Your task to perform on an android device: Open Google Chrome and click the shortcut for Amazon.com Image 0: 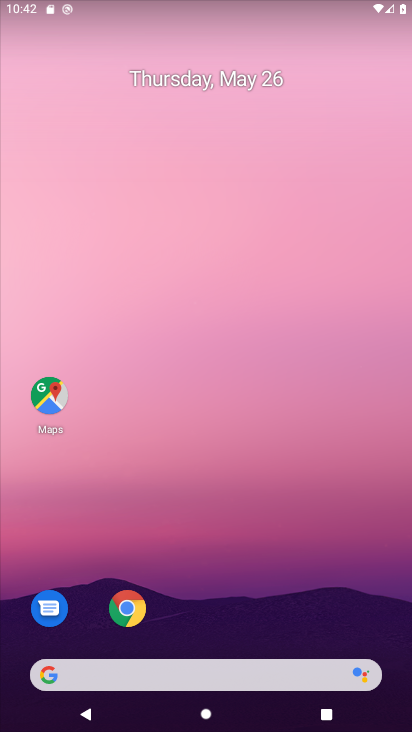
Step 0: click (133, 609)
Your task to perform on an android device: Open Google Chrome and click the shortcut for Amazon.com Image 1: 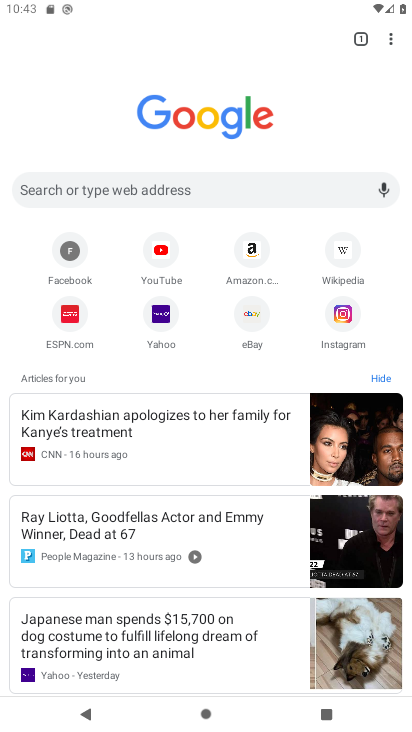
Step 1: click (252, 259)
Your task to perform on an android device: Open Google Chrome and click the shortcut for Amazon.com Image 2: 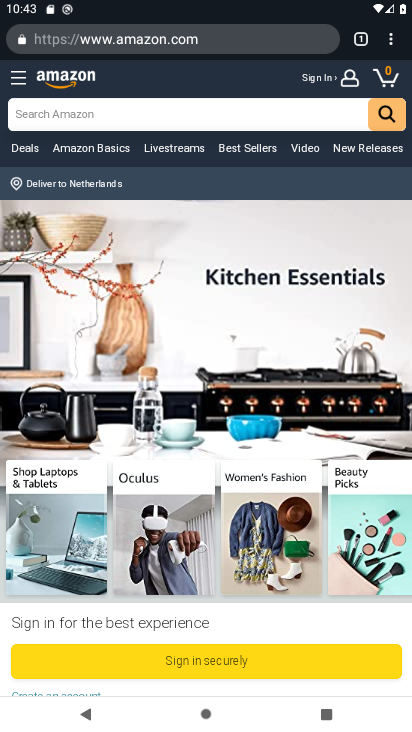
Step 2: task complete